Your task to perform on an android device: turn off location Image 0: 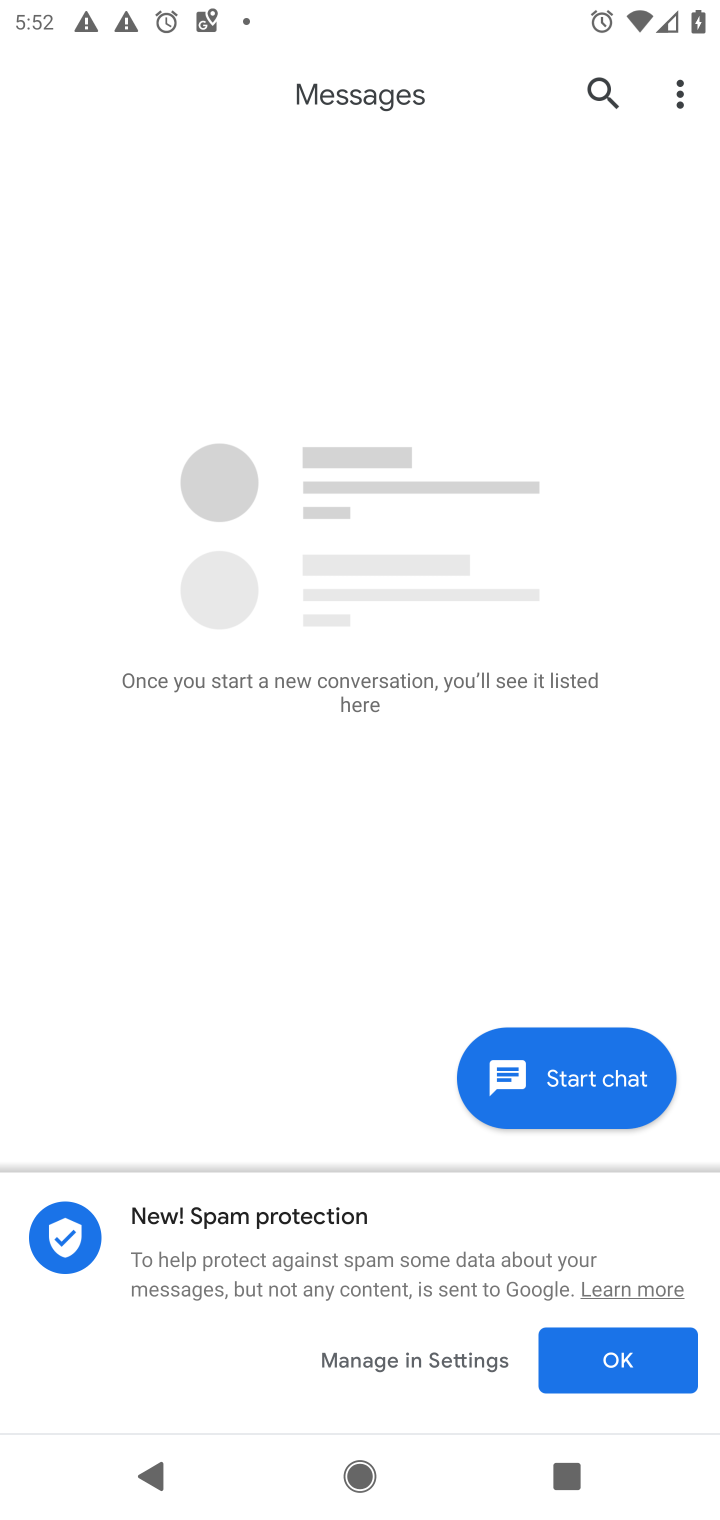
Step 0: press home button
Your task to perform on an android device: turn off location Image 1: 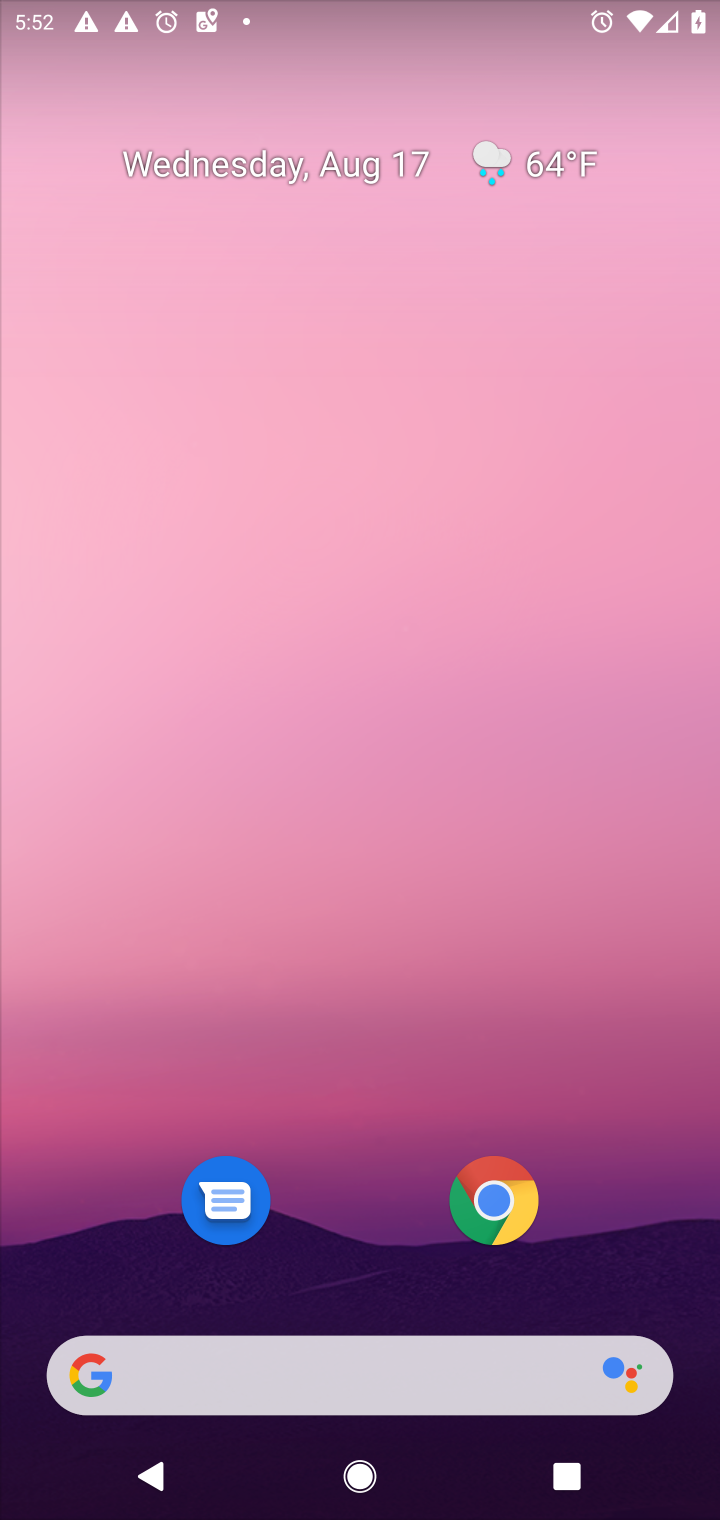
Step 1: drag from (364, 1330) to (364, 108)
Your task to perform on an android device: turn off location Image 2: 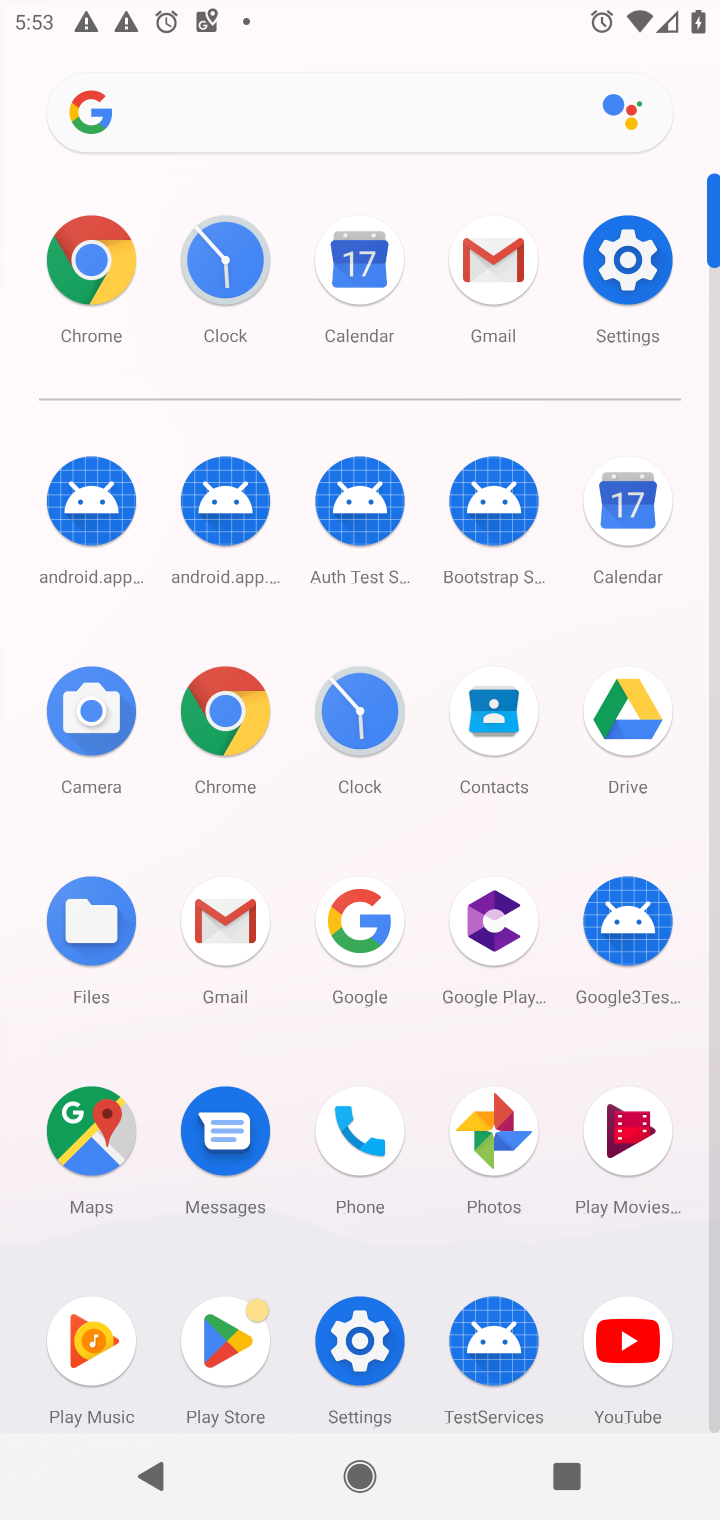
Step 2: click (618, 262)
Your task to perform on an android device: turn off location Image 3: 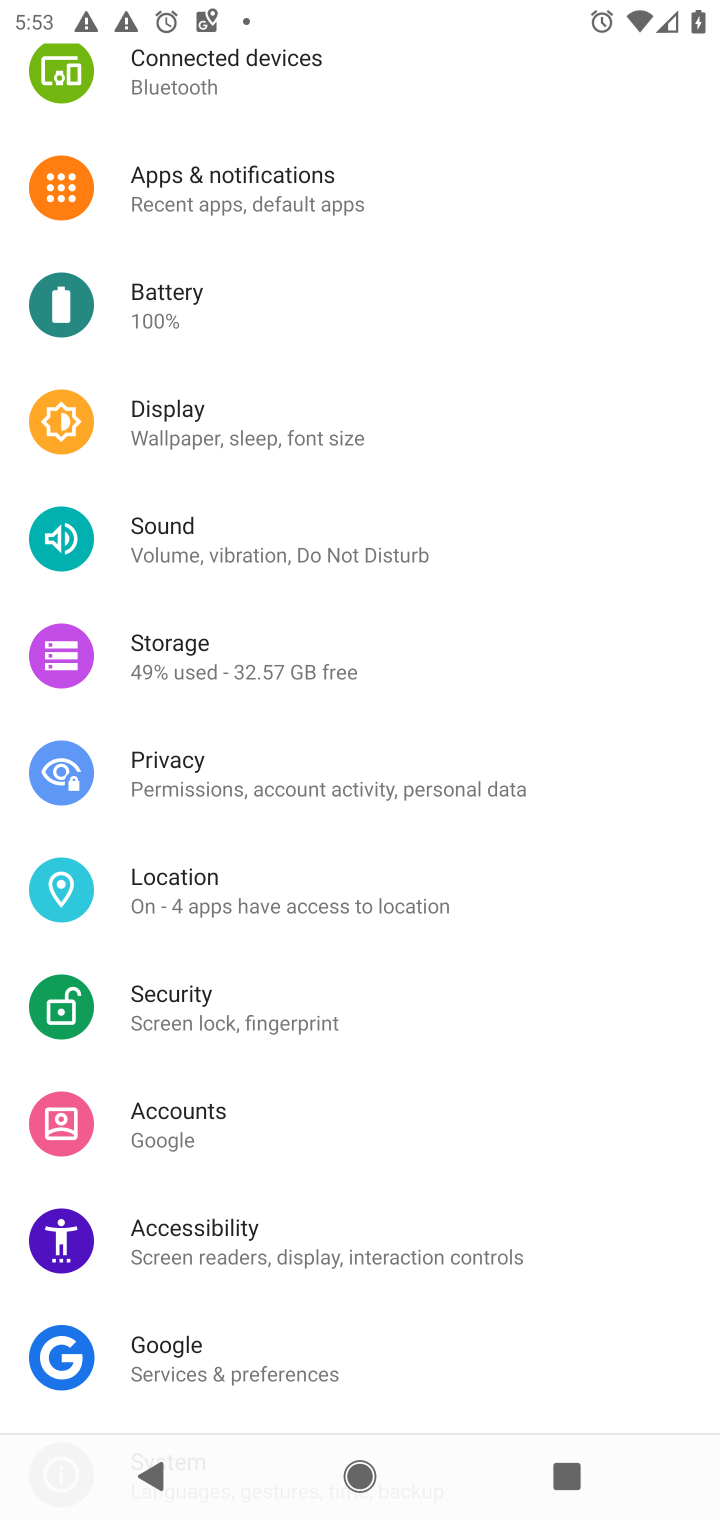
Step 3: click (182, 869)
Your task to perform on an android device: turn off location Image 4: 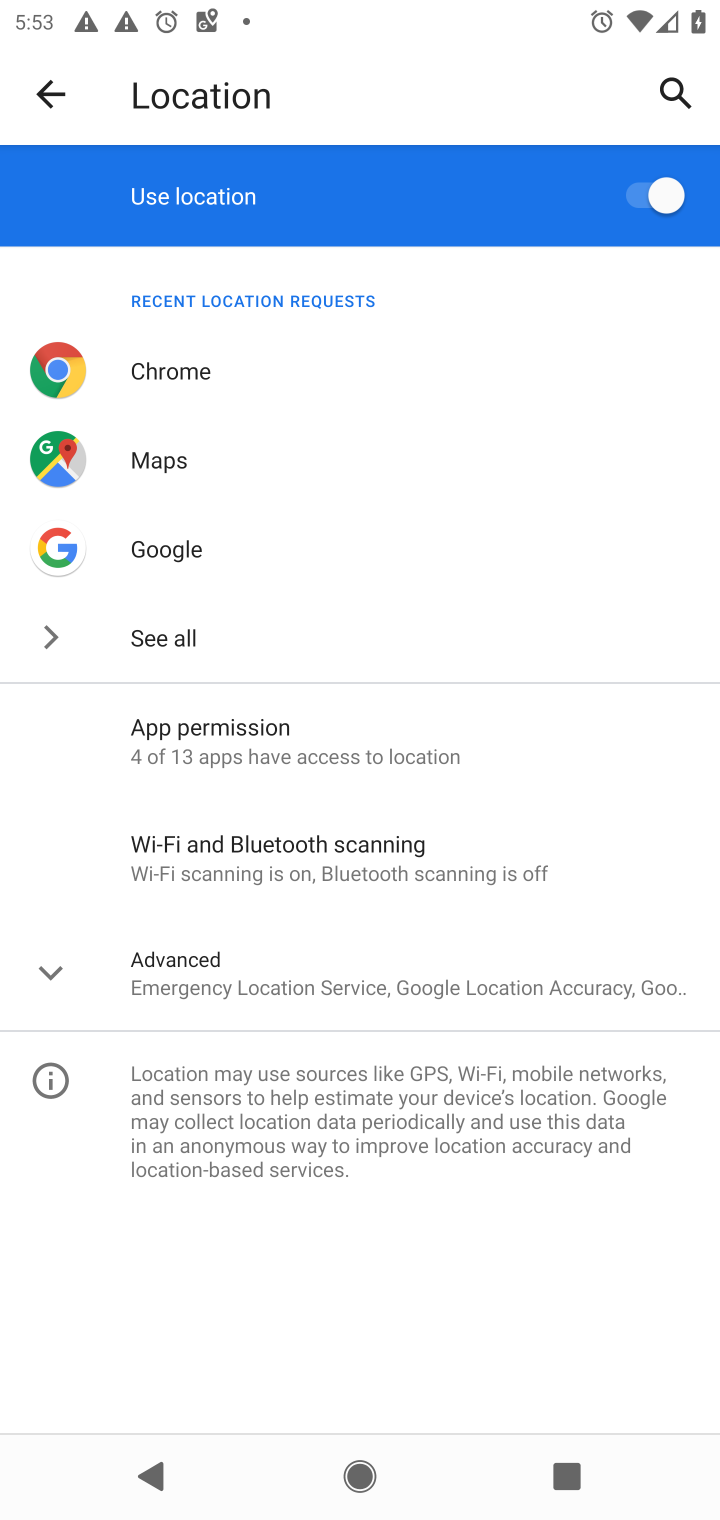
Step 4: click (633, 193)
Your task to perform on an android device: turn off location Image 5: 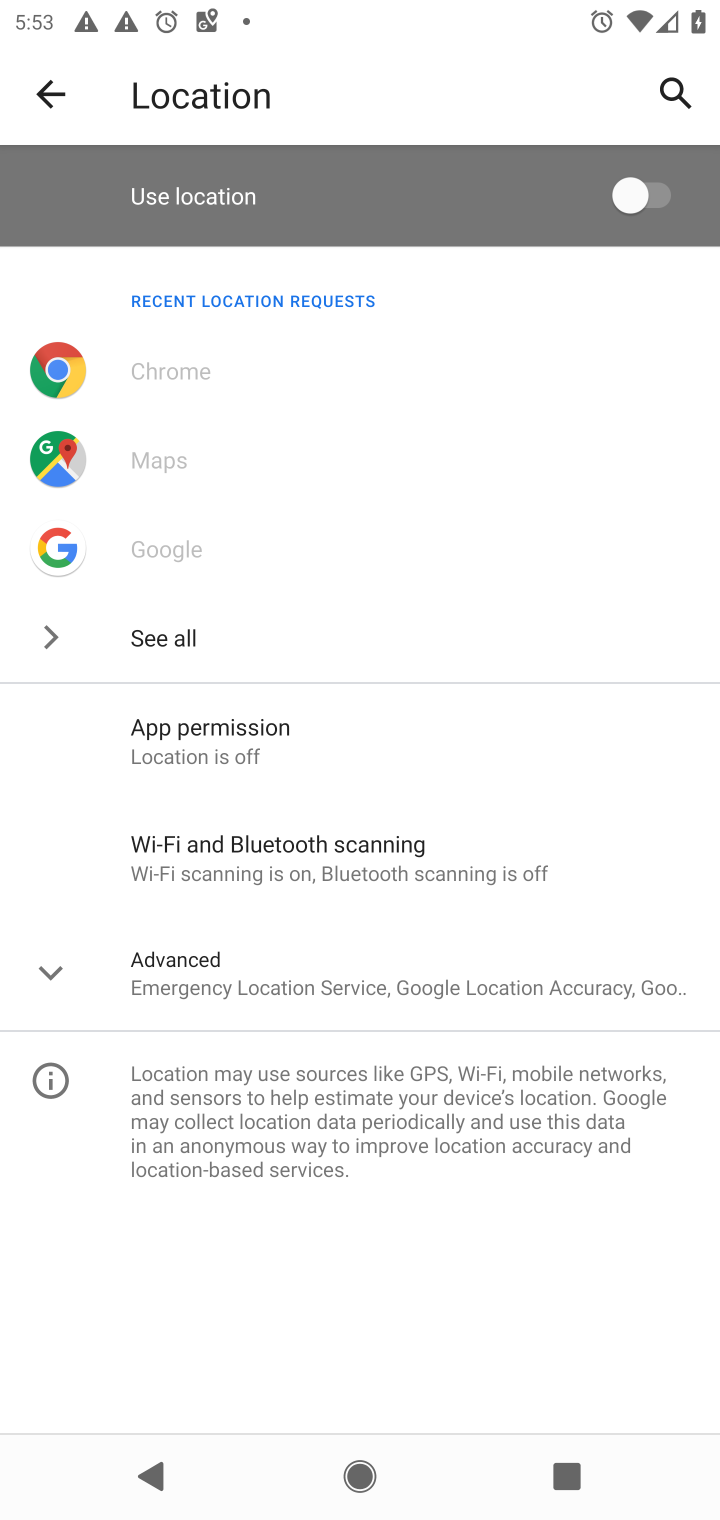
Step 5: task complete